Your task to perform on an android device: Open the map Image 0: 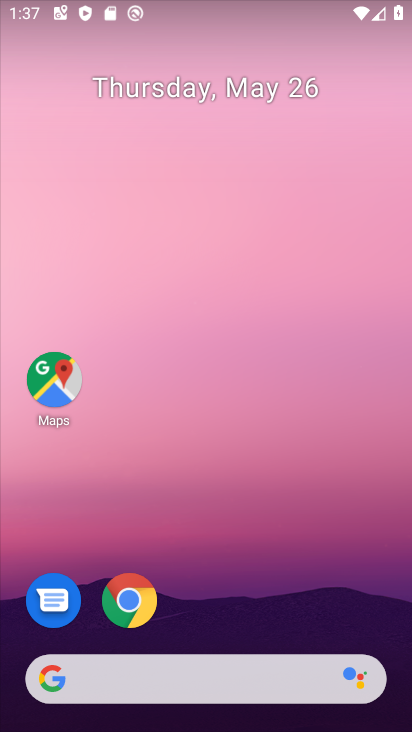
Step 0: drag from (216, 441) to (226, 6)
Your task to perform on an android device: Open the map Image 1: 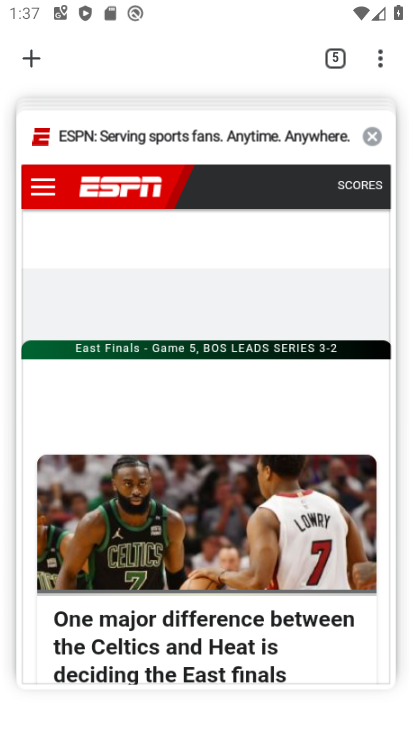
Step 1: press home button
Your task to perform on an android device: Open the map Image 2: 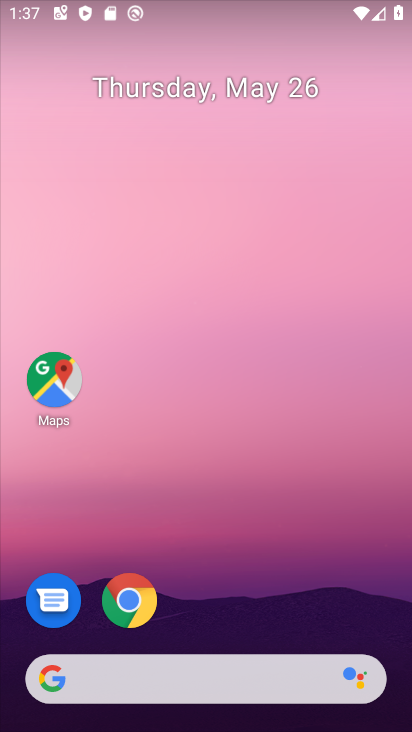
Step 2: click (56, 375)
Your task to perform on an android device: Open the map Image 3: 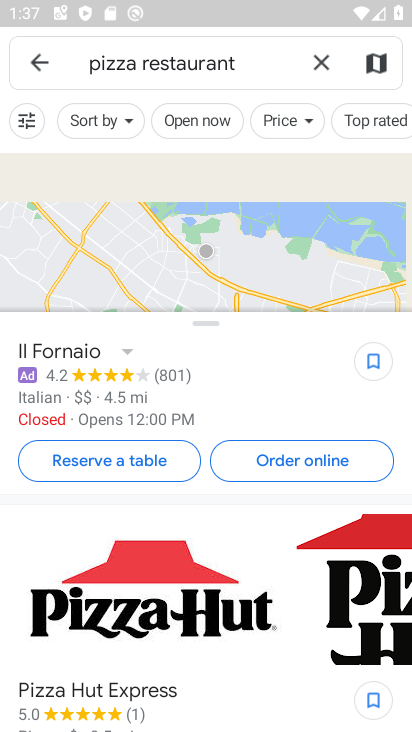
Step 3: task complete